Your task to perform on an android device: toggle translation in the chrome app Image 0: 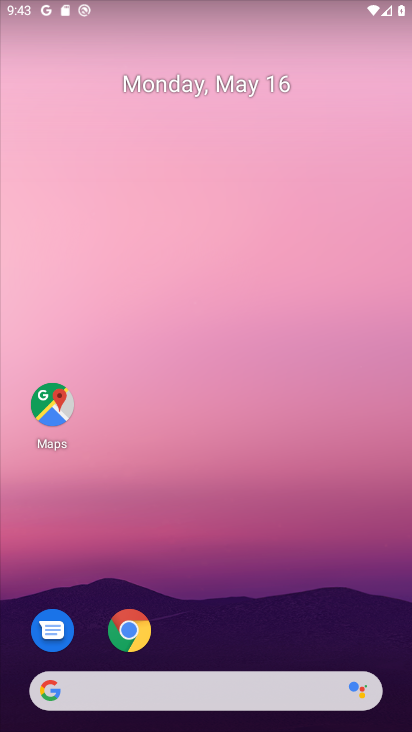
Step 0: click (129, 635)
Your task to perform on an android device: toggle translation in the chrome app Image 1: 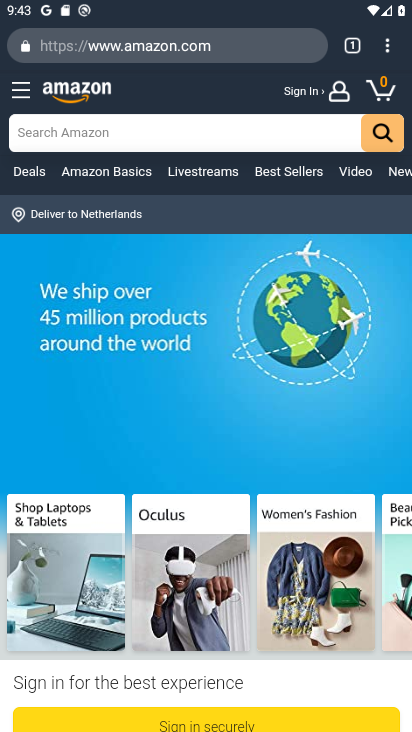
Step 1: click (383, 42)
Your task to perform on an android device: toggle translation in the chrome app Image 2: 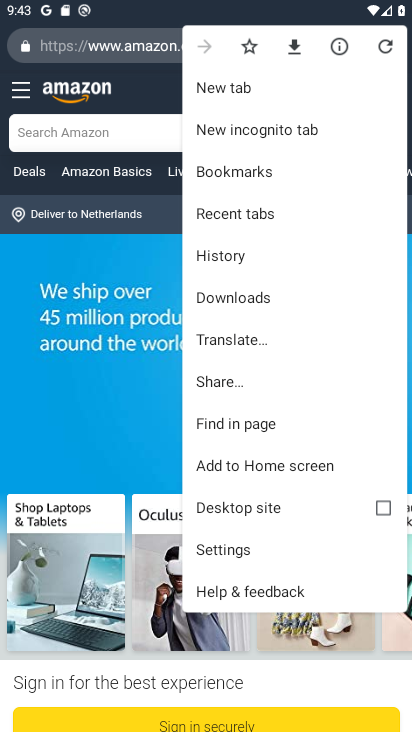
Step 2: click (243, 543)
Your task to perform on an android device: toggle translation in the chrome app Image 3: 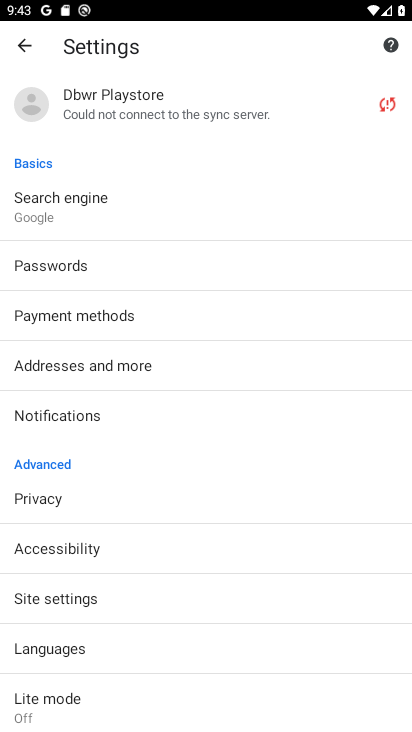
Step 3: click (221, 648)
Your task to perform on an android device: toggle translation in the chrome app Image 4: 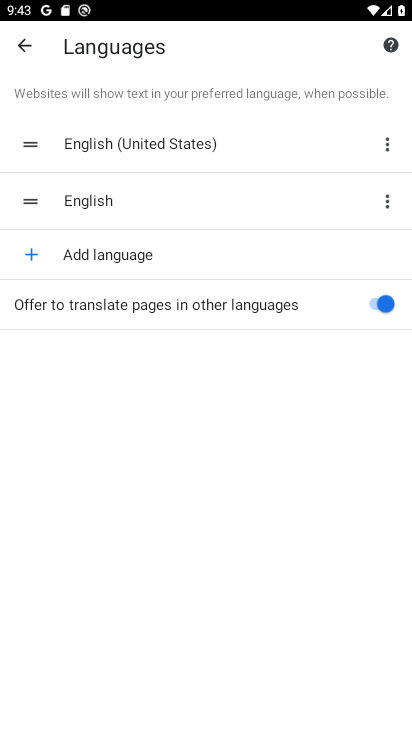
Step 4: click (369, 298)
Your task to perform on an android device: toggle translation in the chrome app Image 5: 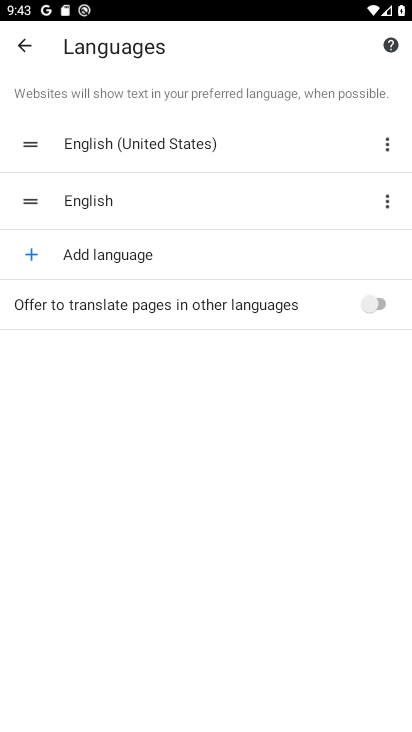
Step 5: task complete